Your task to perform on an android device: clear history in the chrome app Image 0: 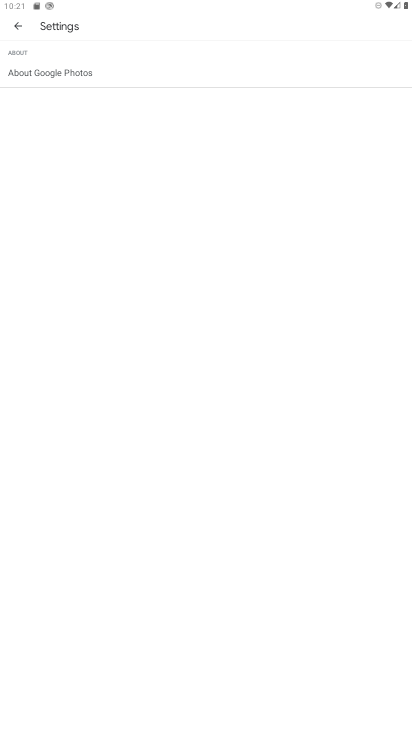
Step 0: press home button
Your task to perform on an android device: clear history in the chrome app Image 1: 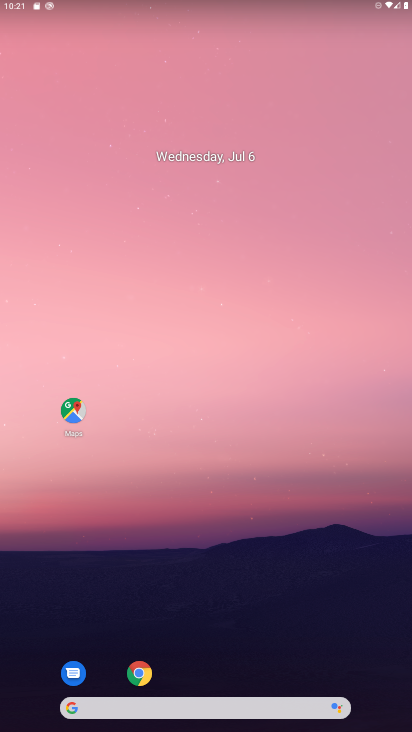
Step 1: click (136, 671)
Your task to perform on an android device: clear history in the chrome app Image 2: 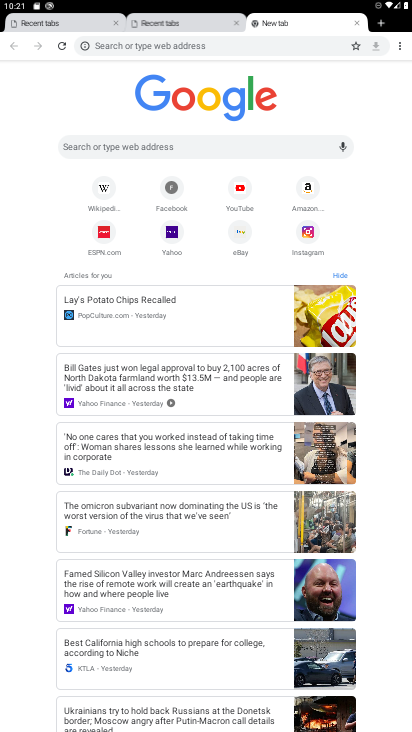
Step 2: click (403, 48)
Your task to perform on an android device: clear history in the chrome app Image 3: 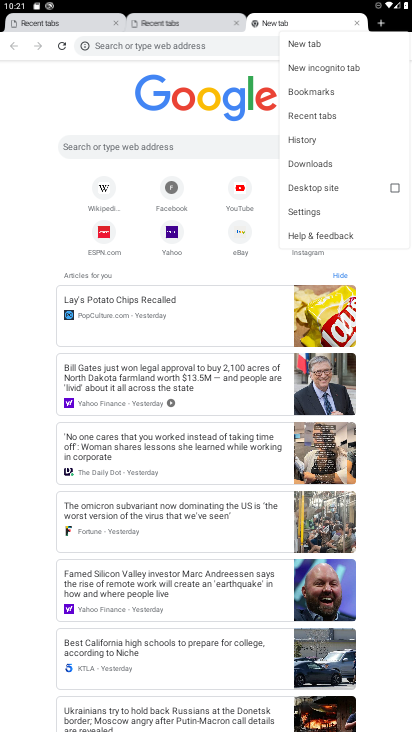
Step 3: click (320, 140)
Your task to perform on an android device: clear history in the chrome app Image 4: 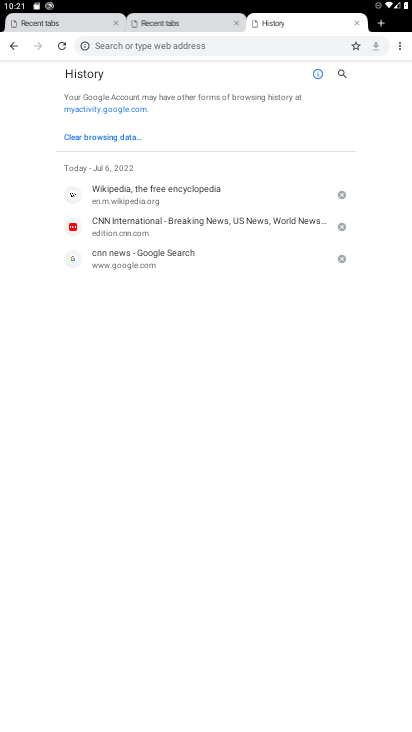
Step 4: click (98, 140)
Your task to perform on an android device: clear history in the chrome app Image 5: 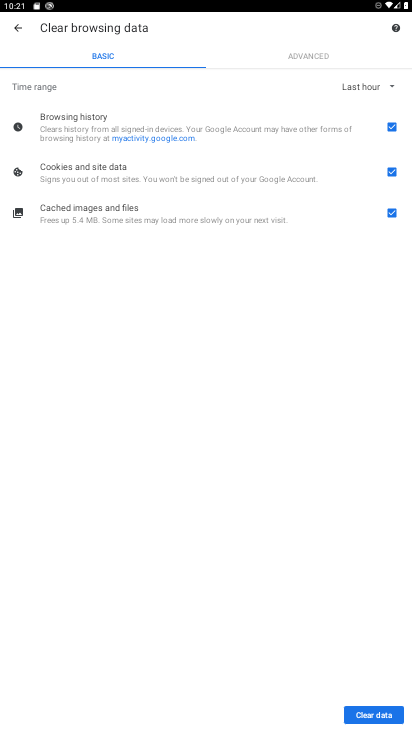
Step 5: click (368, 709)
Your task to perform on an android device: clear history in the chrome app Image 6: 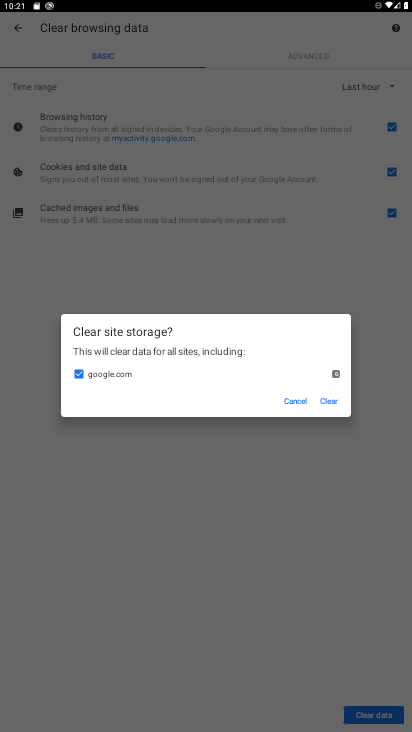
Step 6: click (325, 404)
Your task to perform on an android device: clear history in the chrome app Image 7: 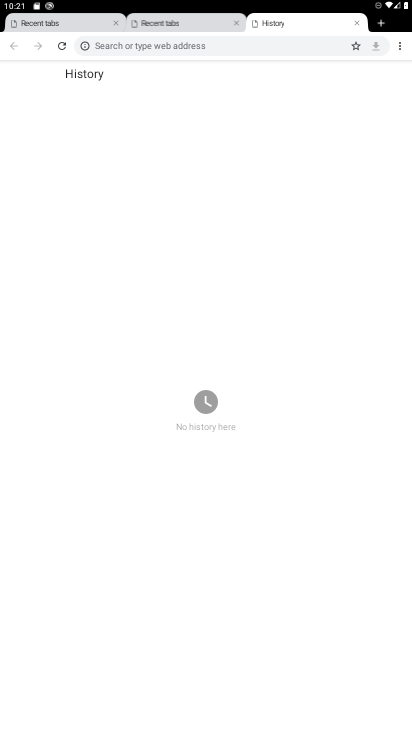
Step 7: task complete